Your task to perform on an android device: Go to ESPN.com Image 0: 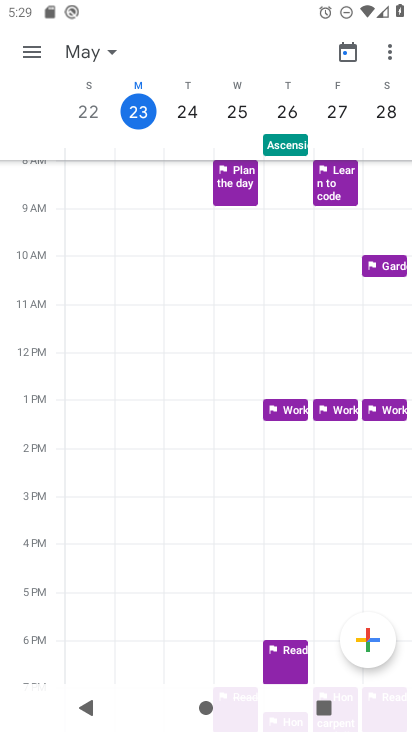
Step 0: press home button
Your task to perform on an android device: Go to ESPN.com Image 1: 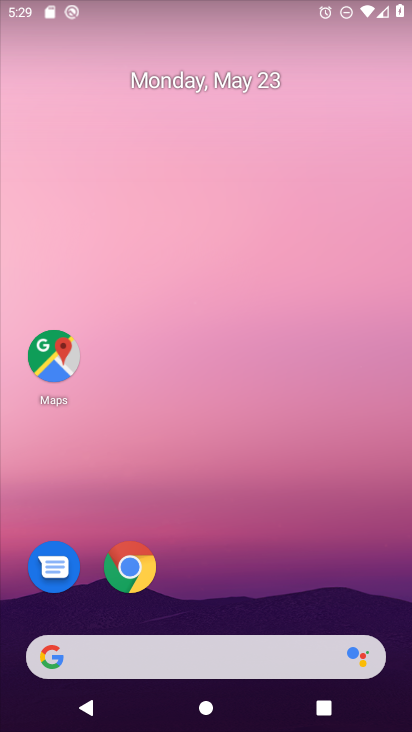
Step 1: click (131, 568)
Your task to perform on an android device: Go to ESPN.com Image 2: 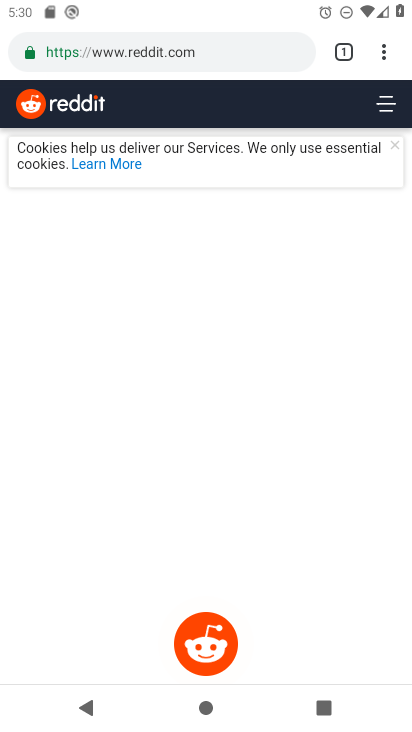
Step 2: click (231, 59)
Your task to perform on an android device: Go to ESPN.com Image 3: 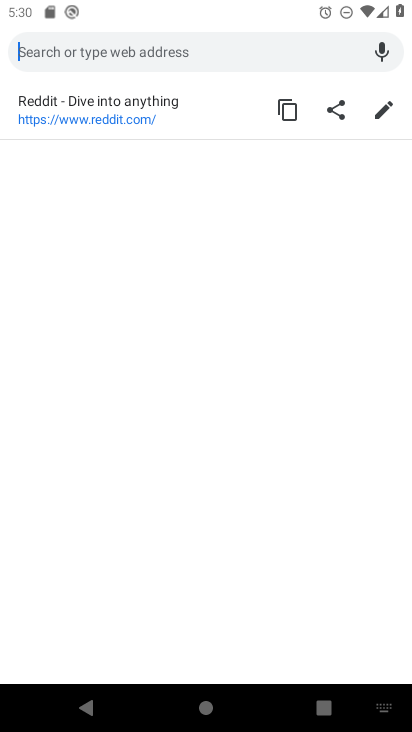
Step 3: type "ESPN.com"
Your task to perform on an android device: Go to ESPN.com Image 4: 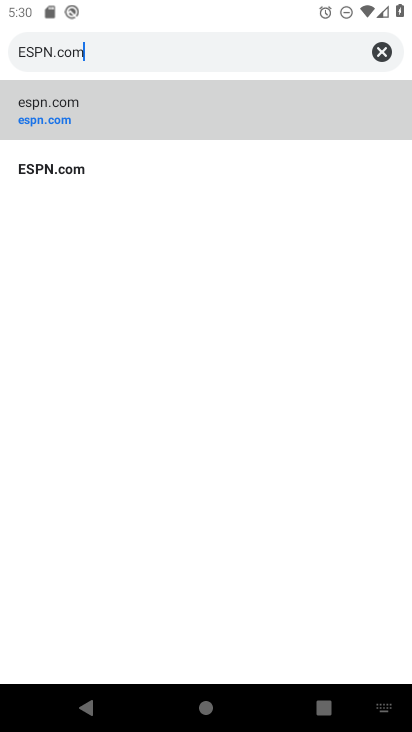
Step 4: type ""
Your task to perform on an android device: Go to ESPN.com Image 5: 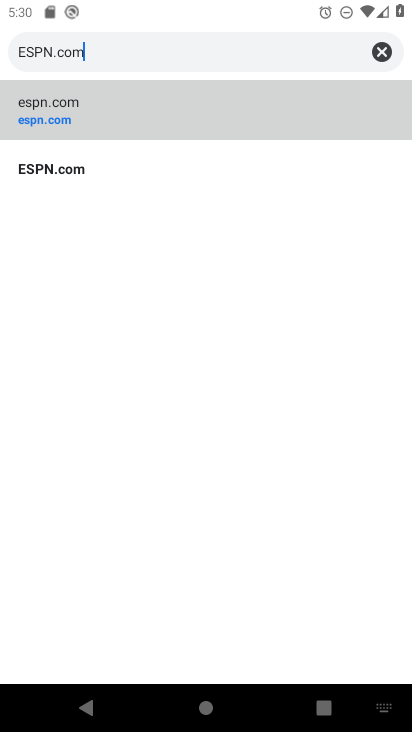
Step 5: click (54, 177)
Your task to perform on an android device: Go to ESPN.com Image 6: 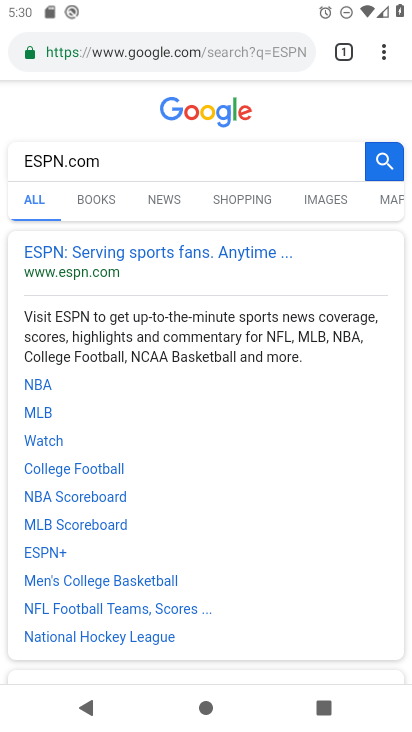
Step 6: click (112, 253)
Your task to perform on an android device: Go to ESPN.com Image 7: 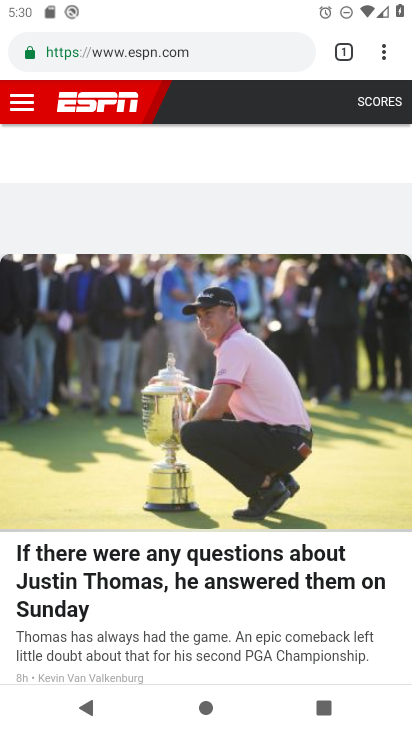
Step 7: task complete